Your task to perform on an android device: Go to internet settings Image 0: 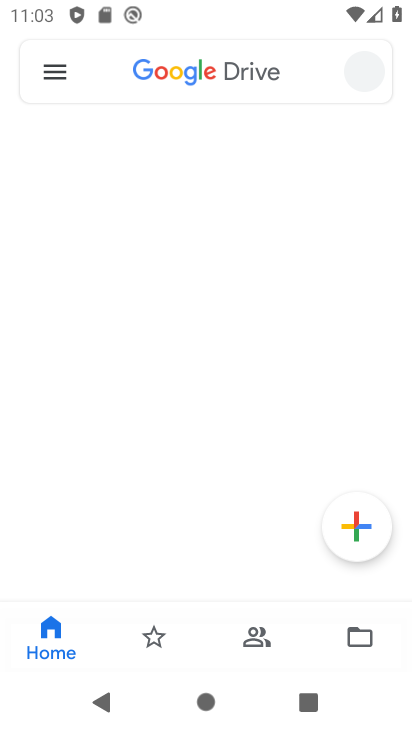
Step 0: drag from (376, 570) to (373, 201)
Your task to perform on an android device: Go to internet settings Image 1: 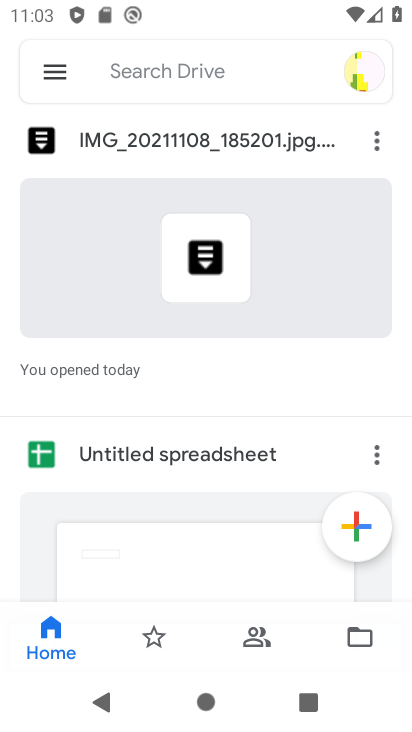
Step 1: press home button
Your task to perform on an android device: Go to internet settings Image 2: 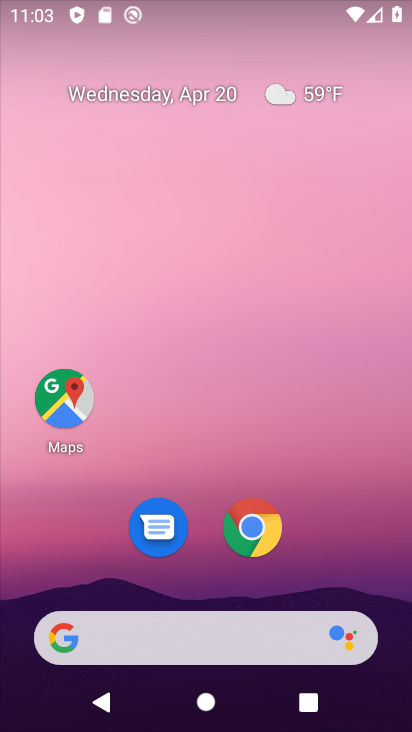
Step 2: drag from (378, 569) to (343, 99)
Your task to perform on an android device: Go to internet settings Image 3: 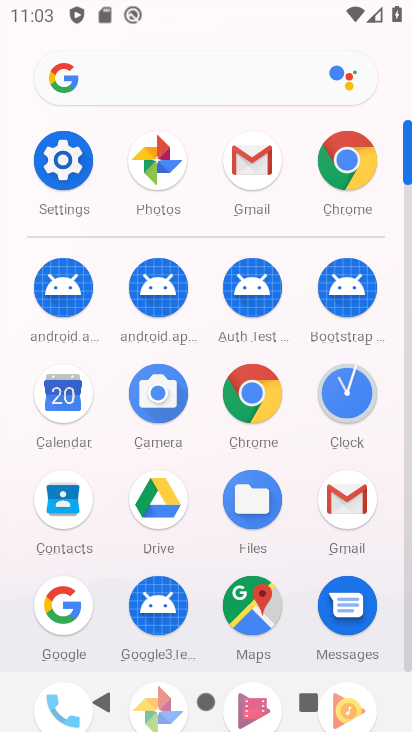
Step 3: click (80, 162)
Your task to perform on an android device: Go to internet settings Image 4: 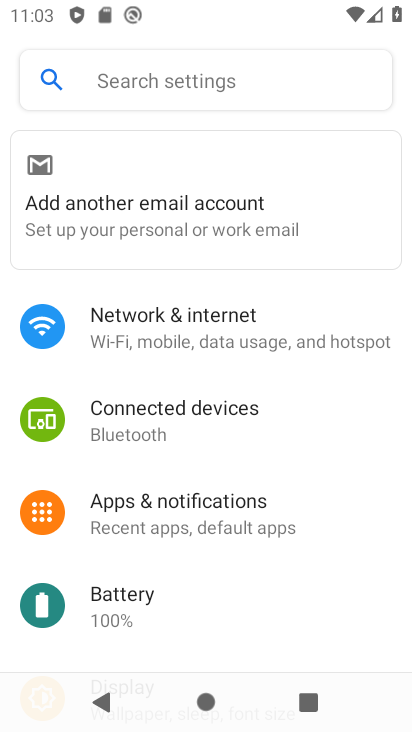
Step 4: click (207, 327)
Your task to perform on an android device: Go to internet settings Image 5: 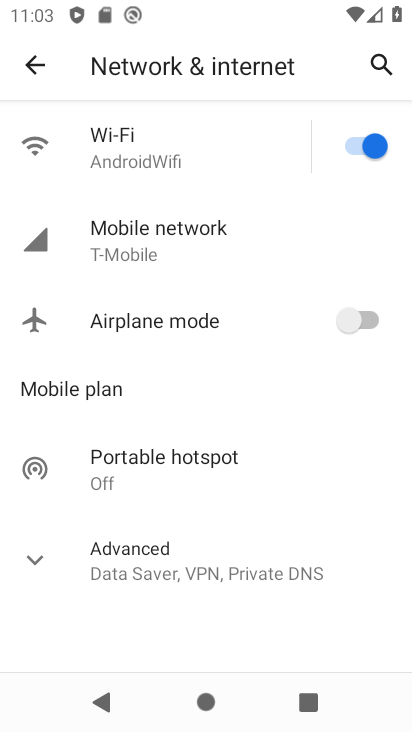
Step 5: click (184, 250)
Your task to perform on an android device: Go to internet settings Image 6: 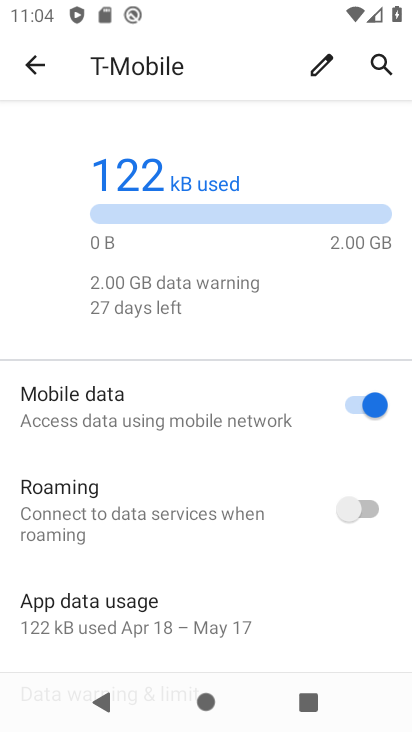
Step 6: task complete